Your task to perform on an android device: Toggle the flashlight Image 0: 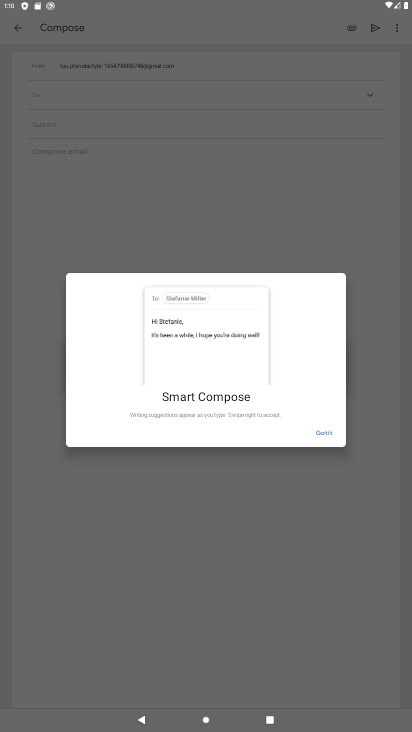
Step 0: press home button
Your task to perform on an android device: Toggle the flashlight Image 1: 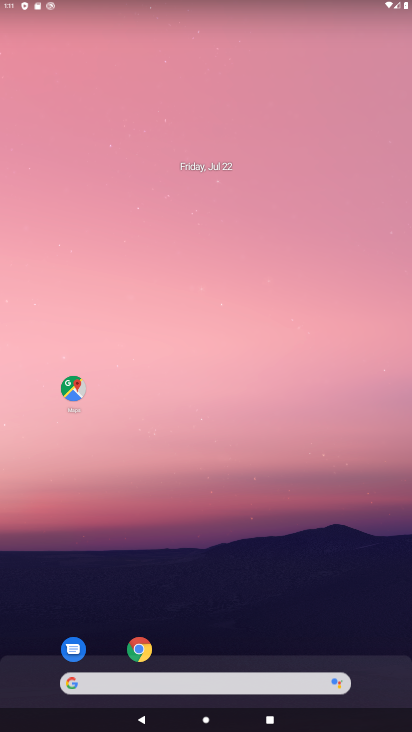
Step 1: drag from (310, 661) to (316, 3)
Your task to perform on an android device: Toggle the flashlight Image 2: 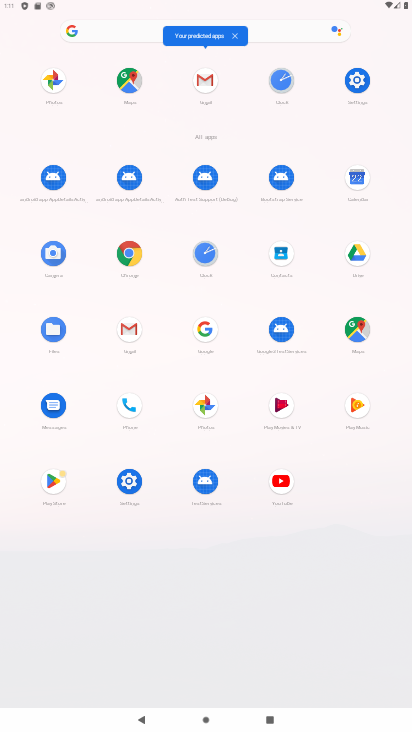
Step 2: click (370, 76)
Your task to perform on an android device: Toggle the flashlight Image 3: 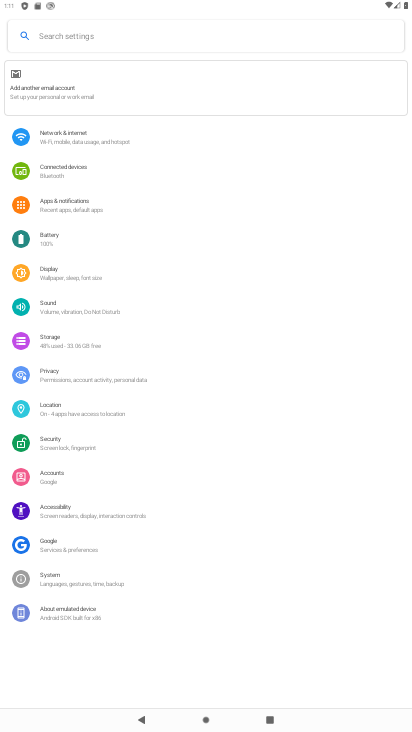
Step 3: task complete